Your task to perform on an android device: Set the phone to "Do not disturb". Image 0: 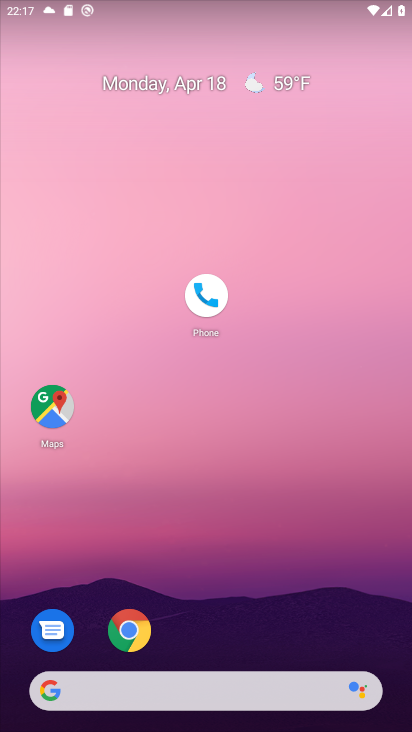
Step 0: drag from (269, 599) to (238, 204)
Your task to perform on an android device: Set the phone to "Do not disturb". Image 1: 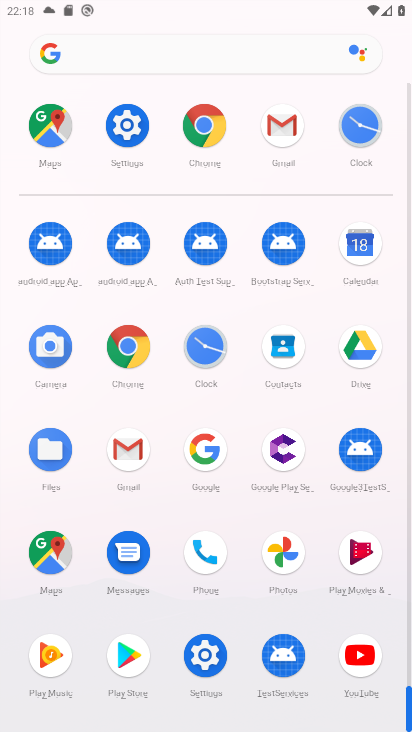
Step 1: drag from (191, 22) to (248, 408)
Your task to perform on an android device: Set the phone to "Do not disturb". Image 2: 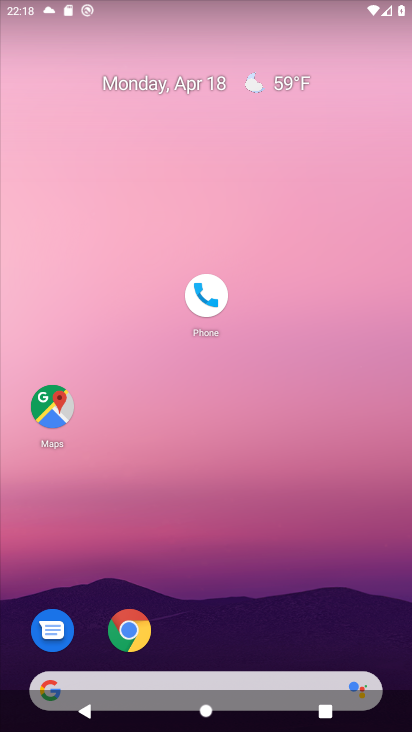
Step 2: drag from (216, 9) to (217, 422)
Your task to perform on an android device: Set the phone to "Do not disturb". Image 3: 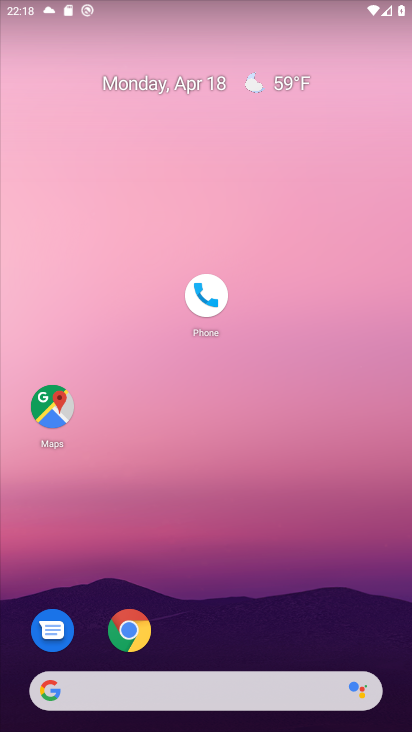
Step 3: drag from (224, 4) to (223, 545)
Your task to perform on an android device: Set the phone to "Do not disturb". Image 4: 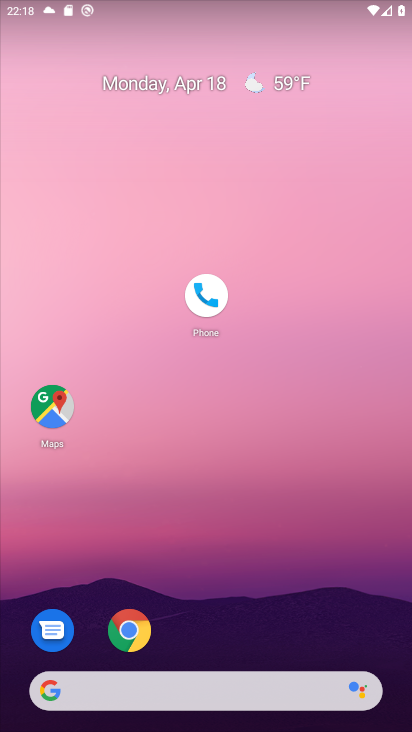
Step 4: drag from (268, 6) to (239, 660)
Your task to perform on an android device: Set the phone to "Do not disturb". Image 5: 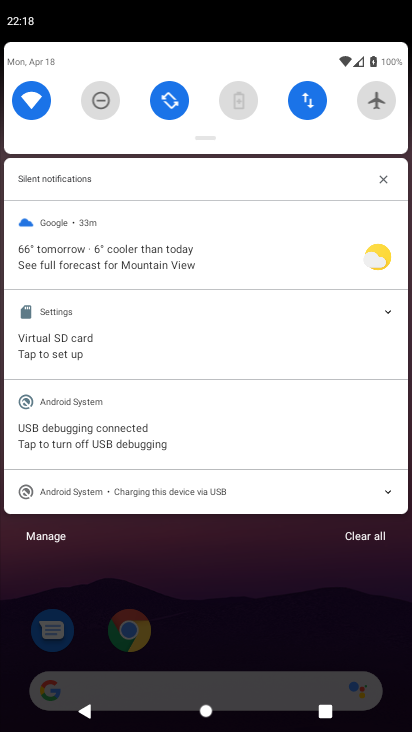
Step 5: drag from (289, 135) to (300, 538)
Your task to perform on an android device: Set the phone to "Do not disturb". Image 6: 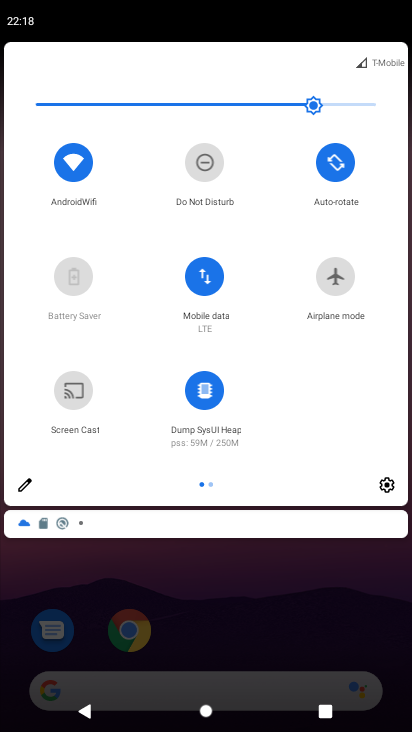
Step 6: click (202, 174)
Your task to perform on an android device: Set the phone to "Do not disturb". Image 7: 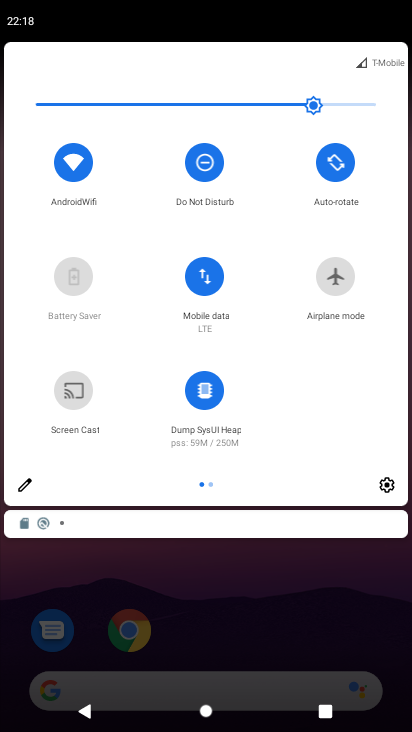
Step 7: task complete